Your task to perform on an android device: Search for vegetarian restaurants on Maps Image 0: 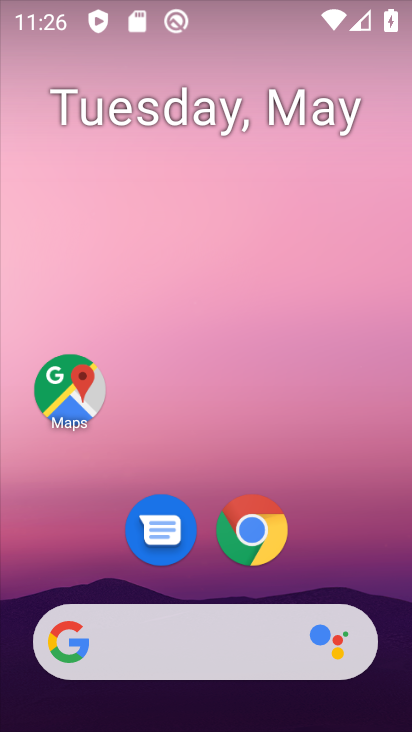
Step 0: click (65, 389)
Your task to perform on an android device: Search for vegetarian restaurants on Maps Image 1: 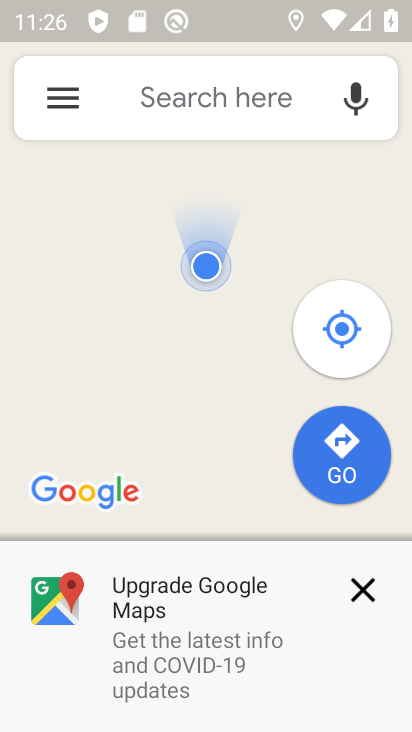
Step 1: click (147, 87)
Your task to perform on an android device: Search for vegetarian restaurants on Maps Image 2: 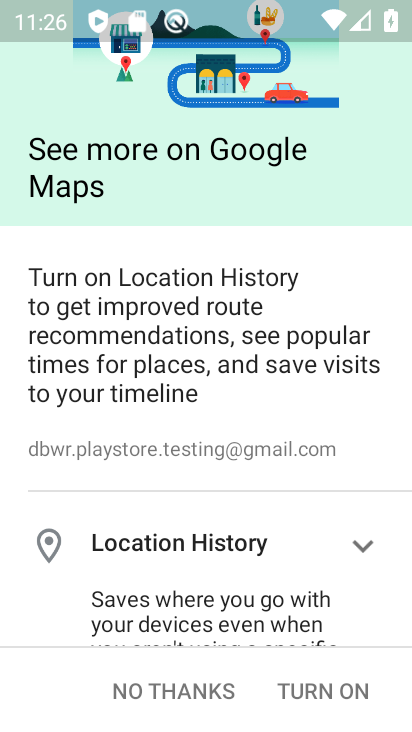
Step 2: type "vegetarian restaurants "
Your task to perform on an android device: Search for vegetarian restaurants on Maps Image 3: 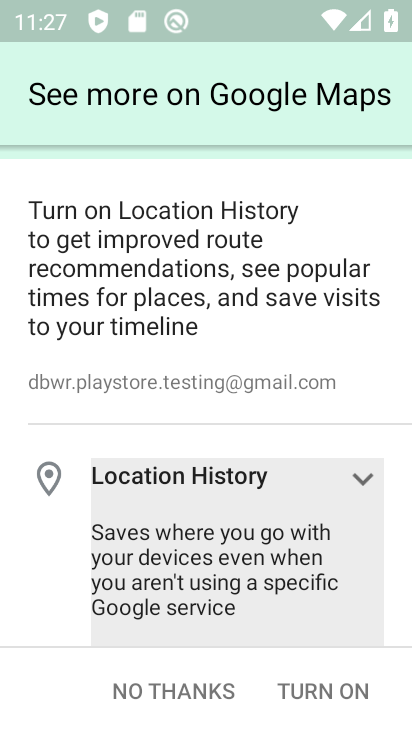
Step 3: click (310, 693)
Your task to perform on an android device: Search for vegetarian restaurants on Maps Image 4: 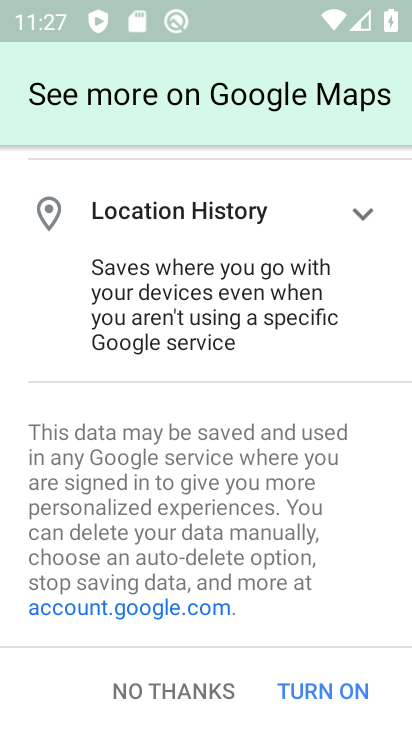
Step 4: click (304, 691)
Your task to perform on an android device: Search for vegetarian restaurants on Maps Image 5: 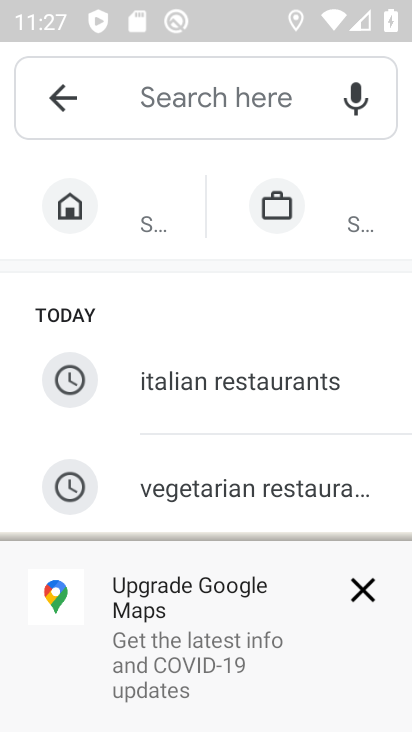
Step 5: click (247, 94)
Your task to perform on an android device: Search for vegetarian restaurants on Maps Image 6: 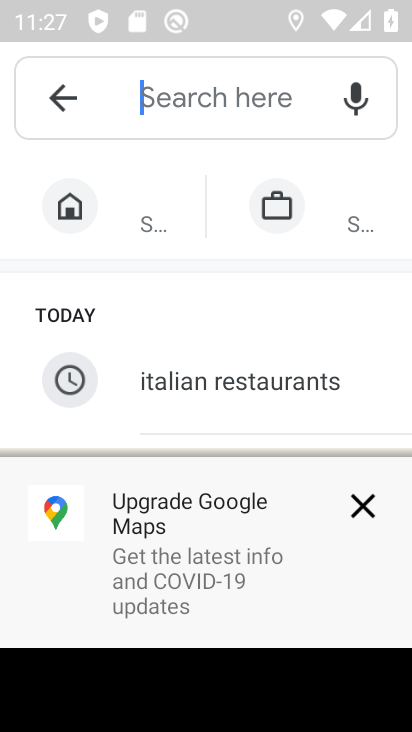
Step 6: type "vegetarian restaurants"
Your task to perform on an android device: Search for vegetarian restaurants on Maps Image 7: 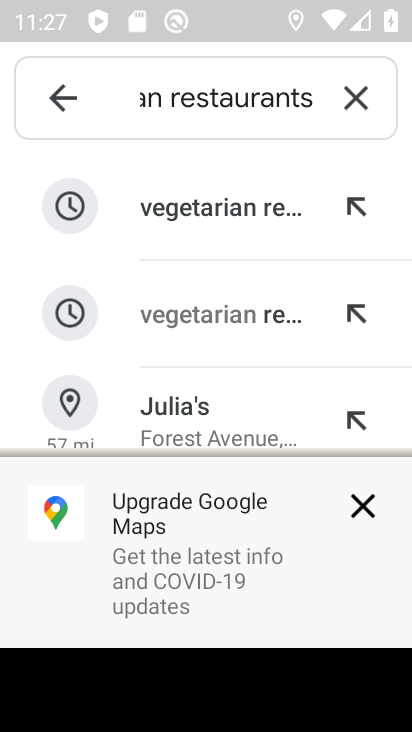
Step 7: click (251, 216)
Your task to perform on an android device: Search for vegetarian restaurants on Maps Image 8: 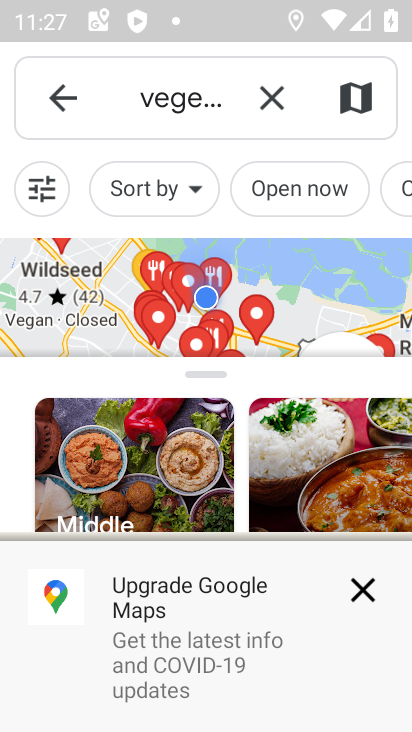
Step 8: task complete